Your task to perform on an android device: toggle translation in the chrome app Image 0: 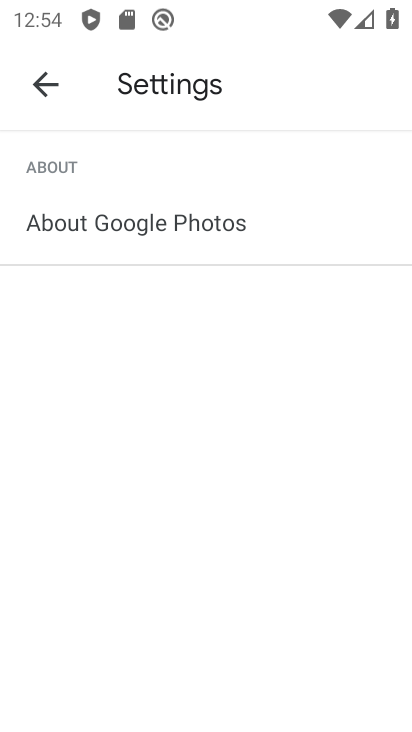
Step 0: press home button
Your task to perform on an android device: toggle translation in the chrome app Image 1: 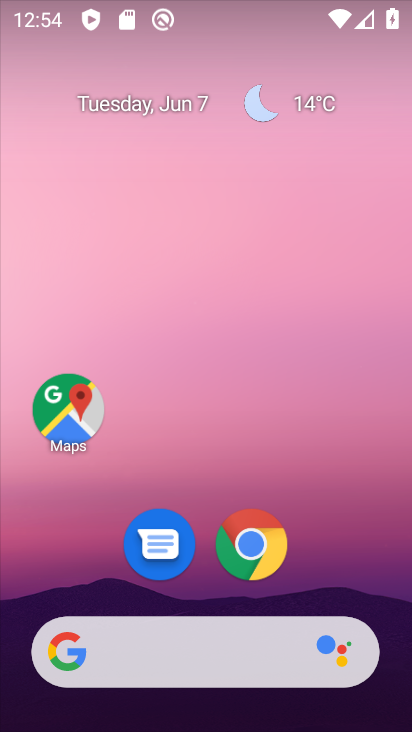
Step 1: click (249, 543)
Your task to perform on an android device: toggle translation in the chrome app Image 2: 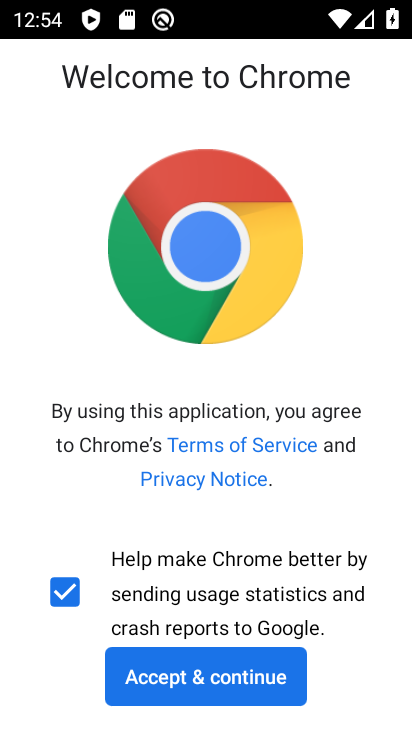
Step 2: click (175, 664)
Your task to perform on an android device: toggle translation in the chrome app Image 3: 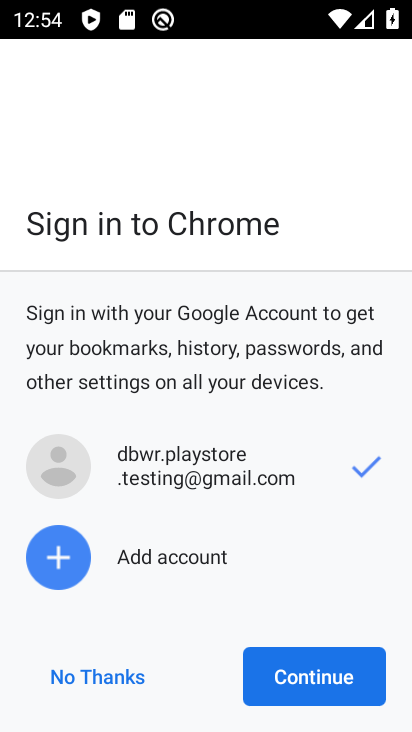
Step 3: click (275, 662)
Your task to perform on an android device: toggle translation in the chrome app Image 4: 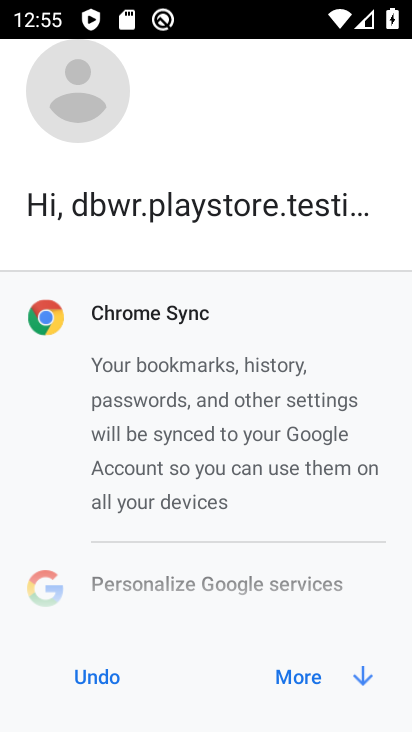
Step 4: click (288, 671)
Your task to perform on an android device: toggle translation in the chrome app Image 5: 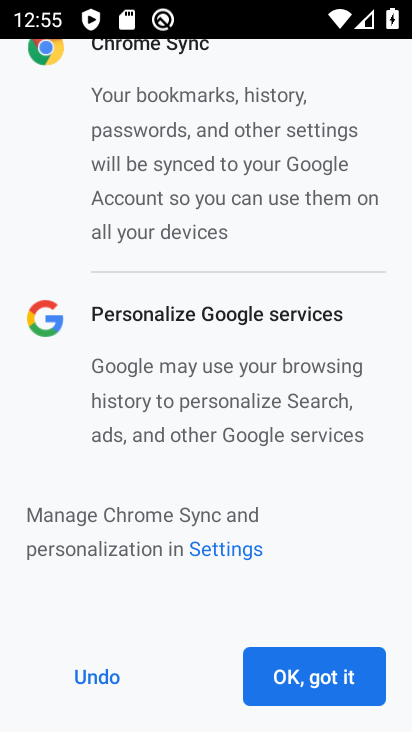
Step 5: click (343, 676)
Your task to perform on an android device: toggle translation in the chrome app Image 6: 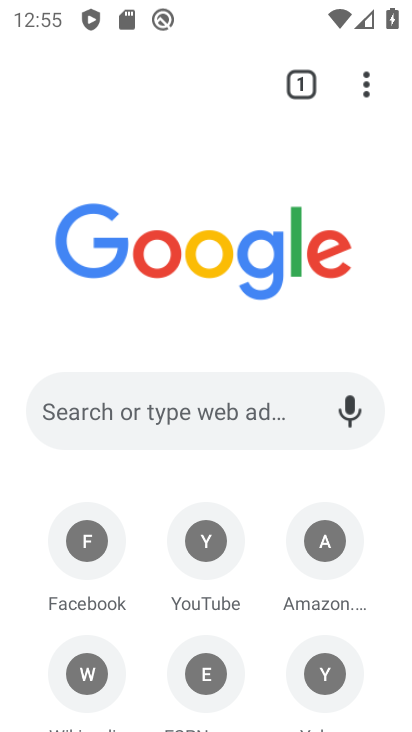
Step 6: drag from (372, 88) to (97, 585)
Your task to perform on an android device: toggle translation in the chrome app Image 7: 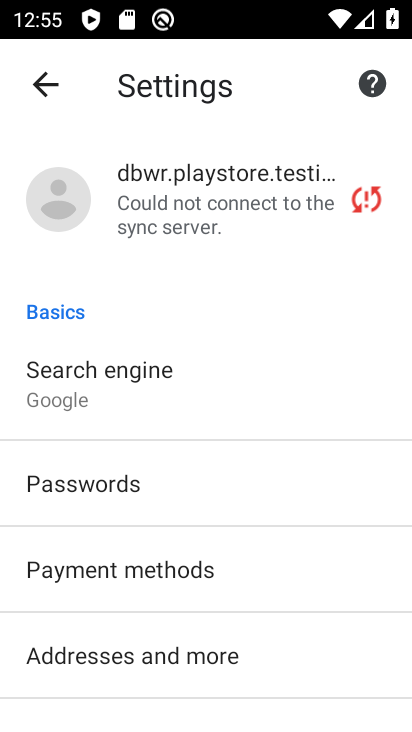
Step 7: drag from (152, 611) to (174, 188)
Your task to perform on an android device: toggle translation in the chrome app Image 8: 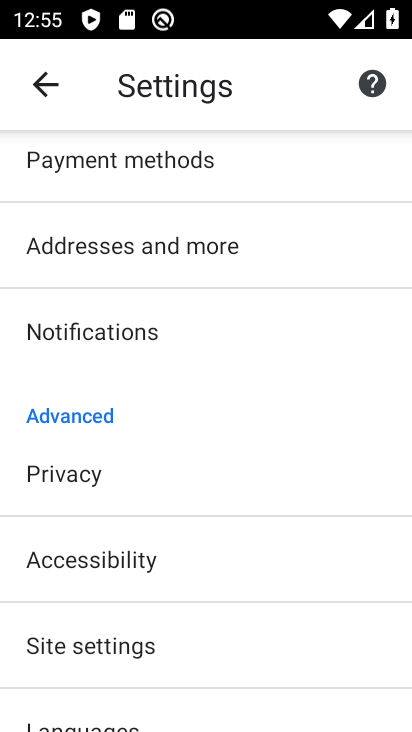
Step 8: drag from (165, 629) to (225, 285)
Your task to perform on an android device: toggle translation in the chrome app Image 9: 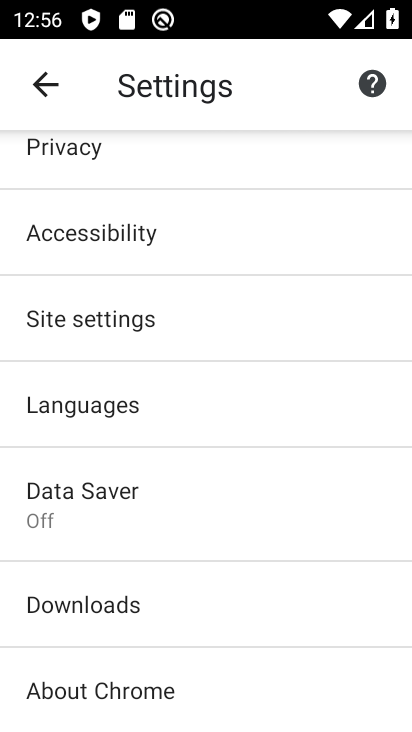
Step 9: click (103, 405)
Your task to perform on an android device: toggle translation in the chrome app Image 10: 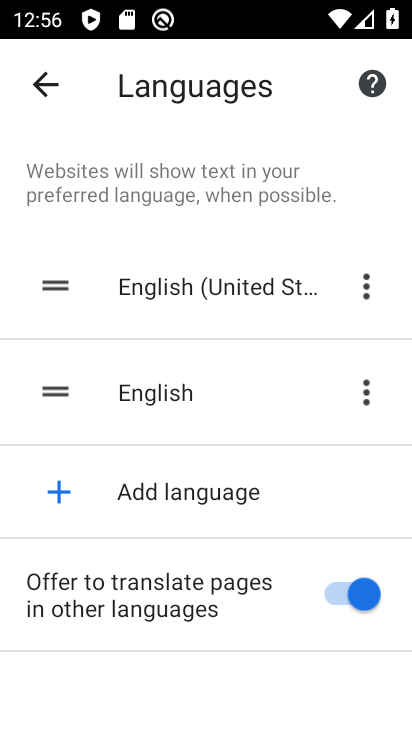
Step 10: click (348, 604)
Your task to perform on an android device: toggle translation in the chrome app Image 11: 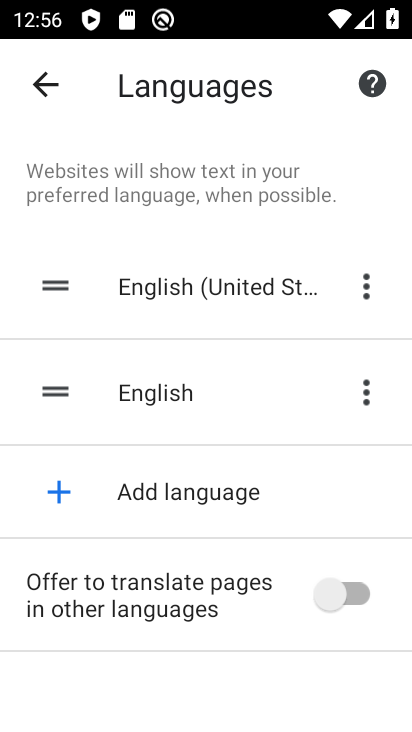
Step 11: task complete